Your task to perform on an android device: see sites visited before in the chrome app Image 0: 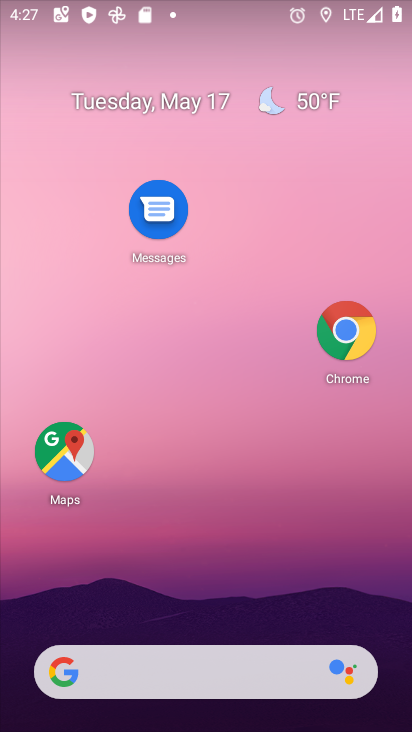
Step 0: click (355, 370)
Your task to perform on an android device: see sites visited before in the chrome app Image 1: 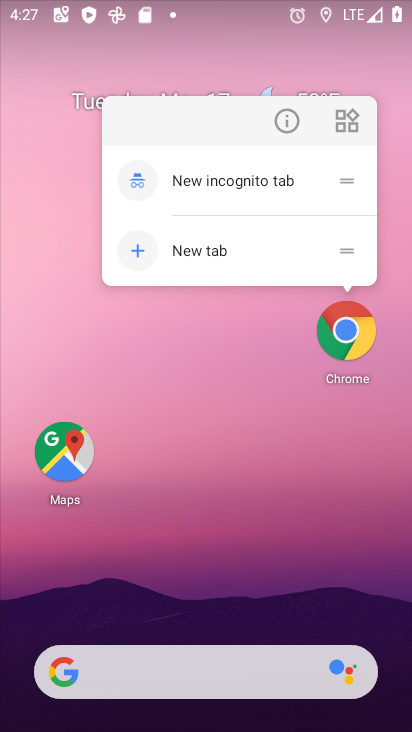
Step 1: click (329, 327)
Your task to perform on an android device: see sites visited before in the chrome app Image 2: 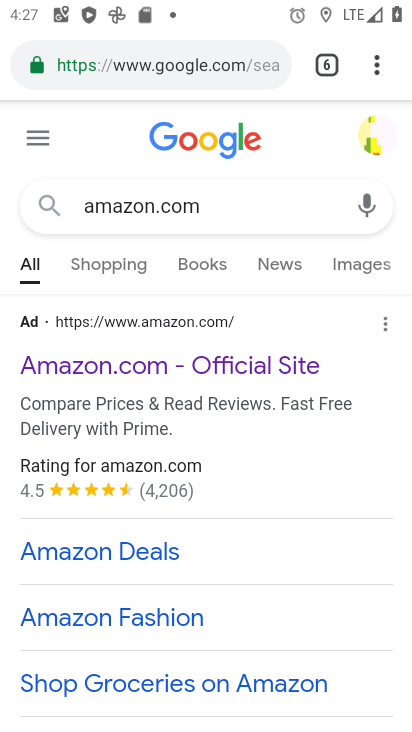
Step 2: click (384, 79)
Your task to perform on an android device: see sites visited before in the chrome app Image 3: 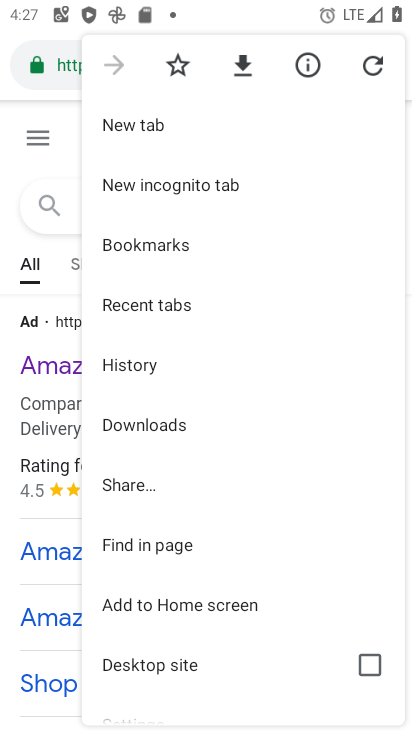
Step 3: drag from (169, 484) to (169, 414)
Your task to perform on an android device: see sites visited before in the chrome app Image 4: 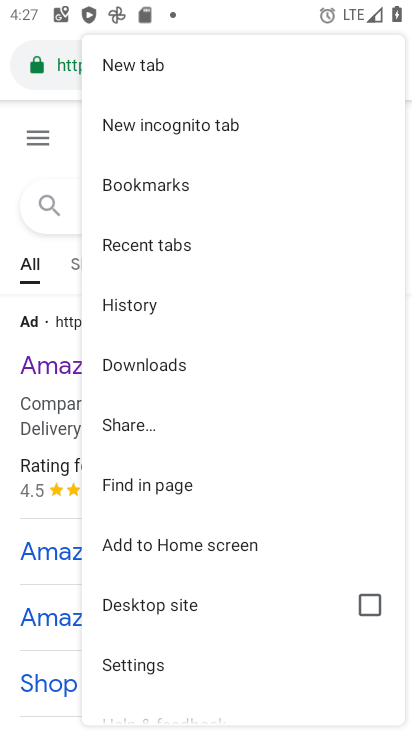
Step 4: click (193, 345)
Your task to perform on an android device: see sites visited before in the chrome app Image 5: 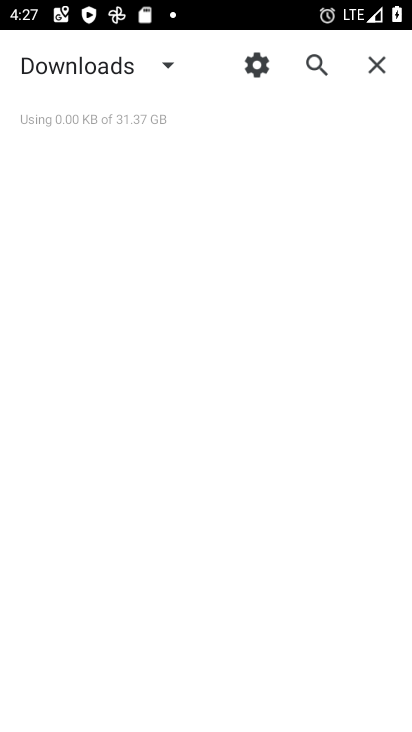
Step 5: click (369, 67)
Your task to perform on an android device: see sites visited before in the chrome app Image 6: 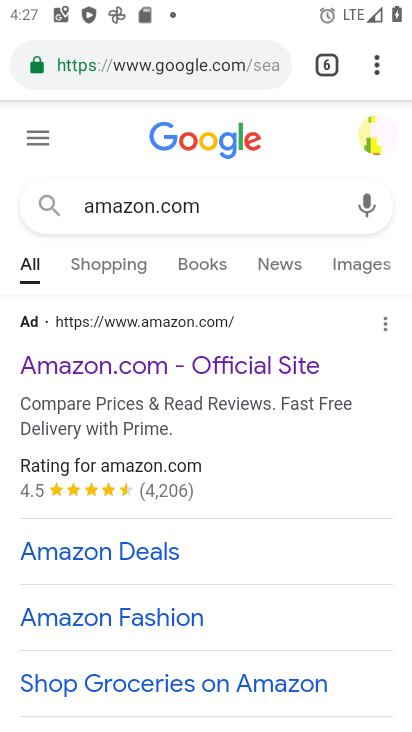
Step 6: click (369, 67)
Your task to perform on an android device: see sites visited before in the chrome app Image 7: 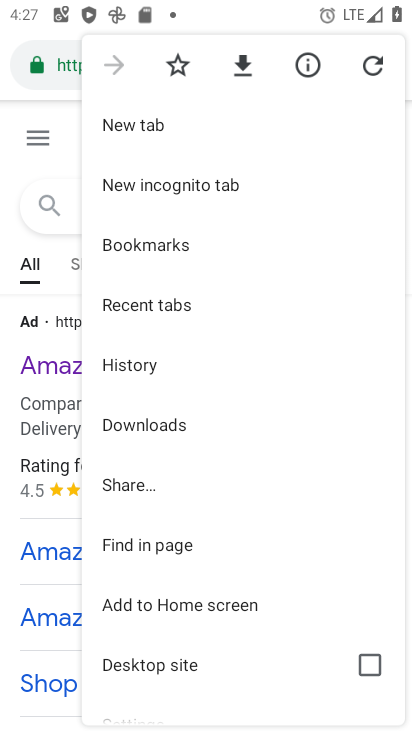
Step 7: click (159, 299)
Your task to perform on an android device: see sites visited before in the chrome app Image 8: 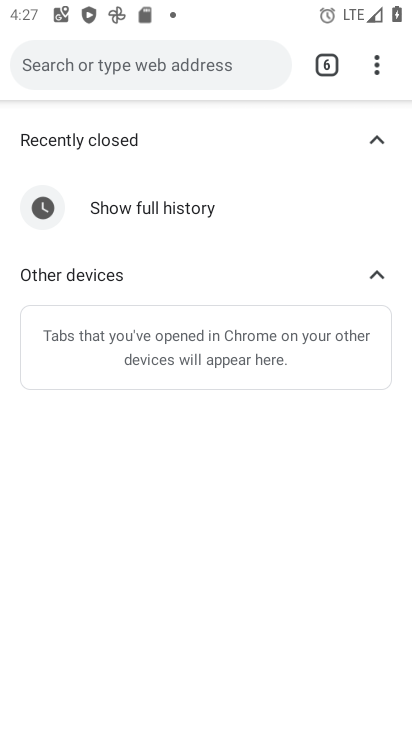
Step 8: task complete